Your task to perform on an android device: Go to internet settings Image 0: 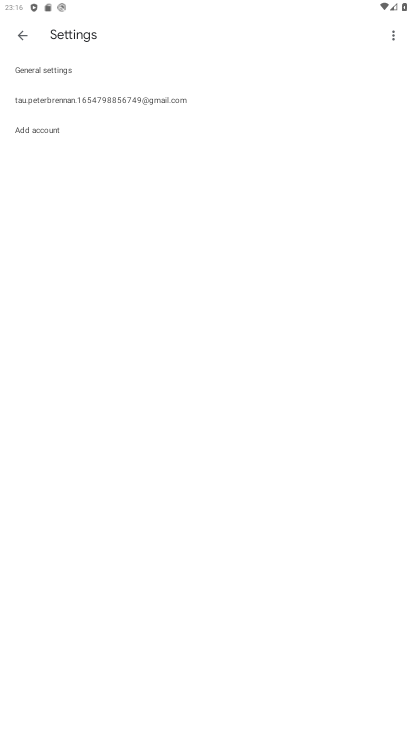
Step 0: press home button
Your task to perform on an android device: Go to internet settings Image 1: 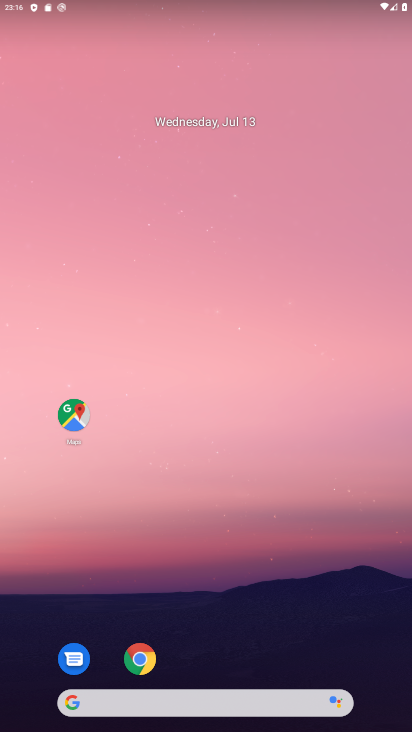
Step 1: drag from (316, 647) to (237, 174)
Your task to perform on an android device: Go to internet settings Image 2: 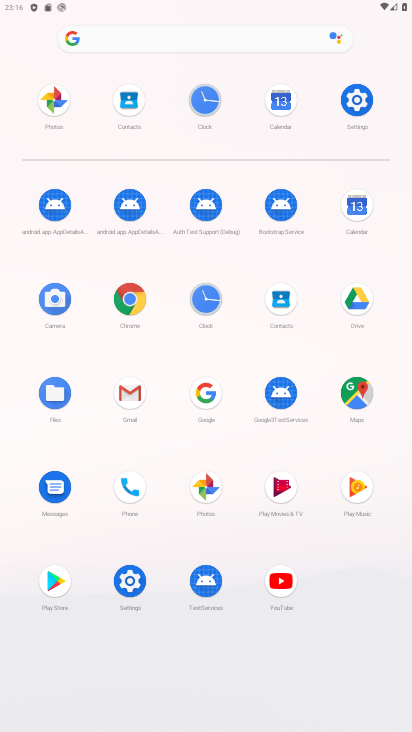
Step 2: click (125, 581)
Your task to perform on an android device: Go to internet settings Image 3: 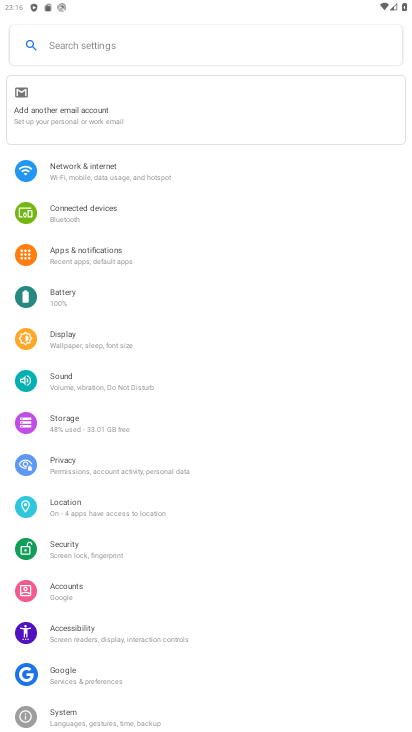
Step 3: click (82, 164)
Your task to perform on an android device: Go to internet settings Image 4: 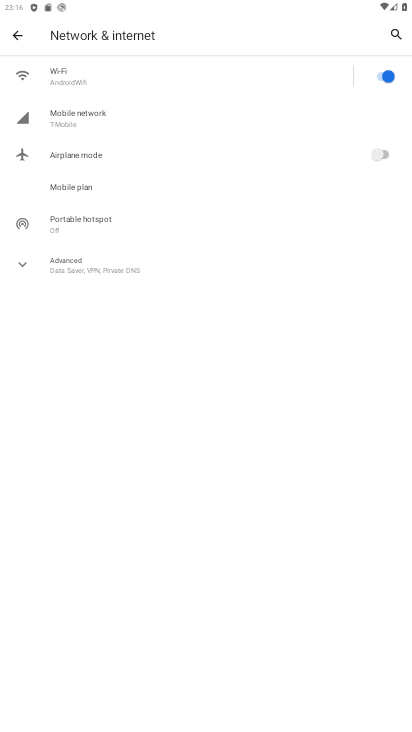
Step 4: click (60, 73)
Your task to perform on an android device: Go to internet settings Image 5: 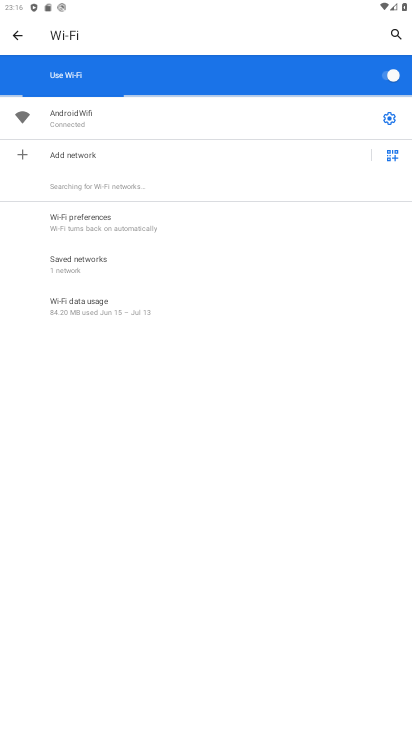
Step 5: task complete